Your task to perform on an android device: change the clock display to digital Image 0: 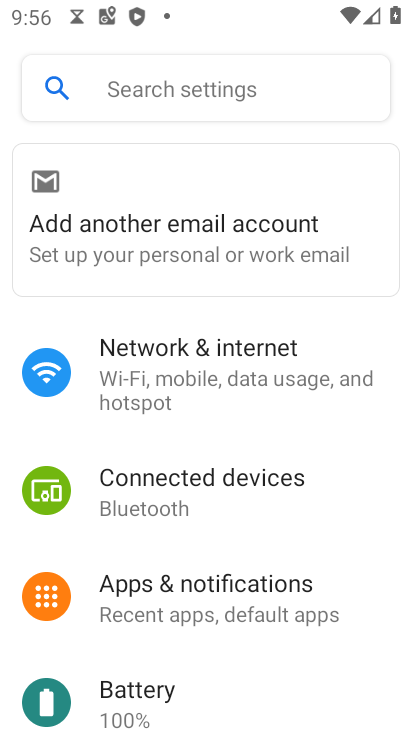
Step 0: press home button
Your task to perform on an android device: change the clock display to digital Image 1: 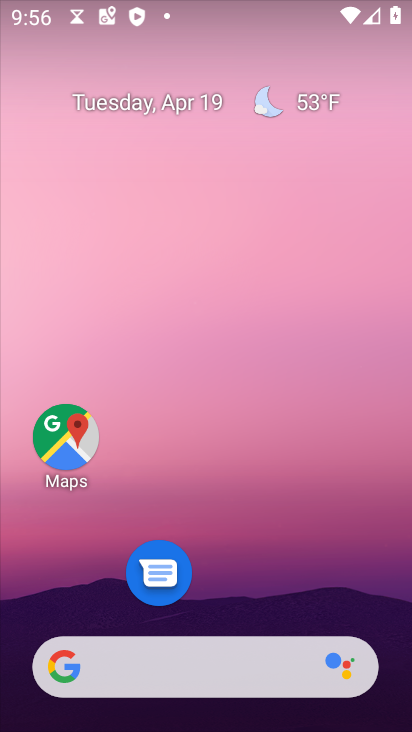
Step 1: drag from (231, 597) to (194, 164)
Your task to perform on an android device: change the clock display to digital Image 2: 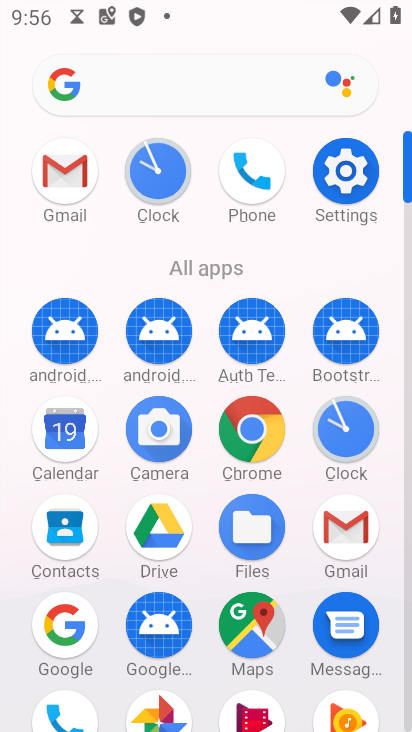
Step 2: click (163, 179)
Your task to perform on an android device: change the clock display to digital Image 3: 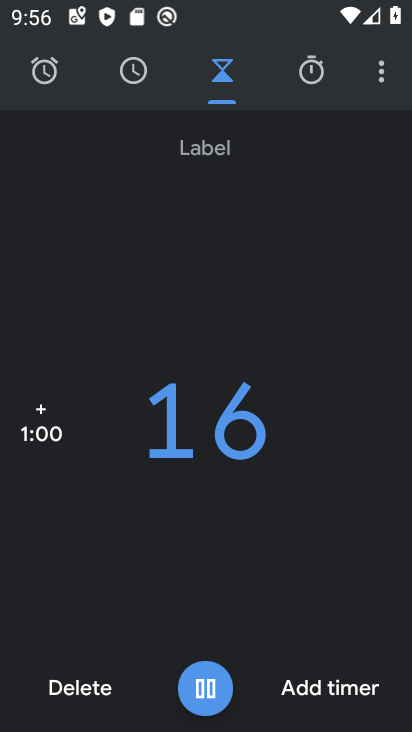
Step 3: click (376, 76)
Your task to perform on an android device: change the clock display to digital Image 4: 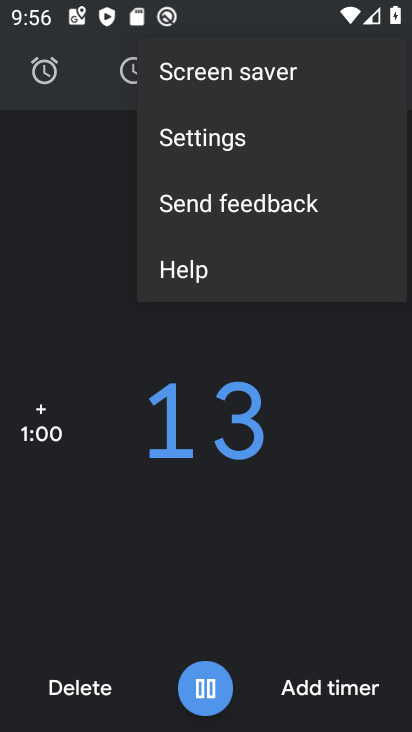
Step 4: click (201, 132)
Your task to perform on an android device: change the clock display to digital Image 5: 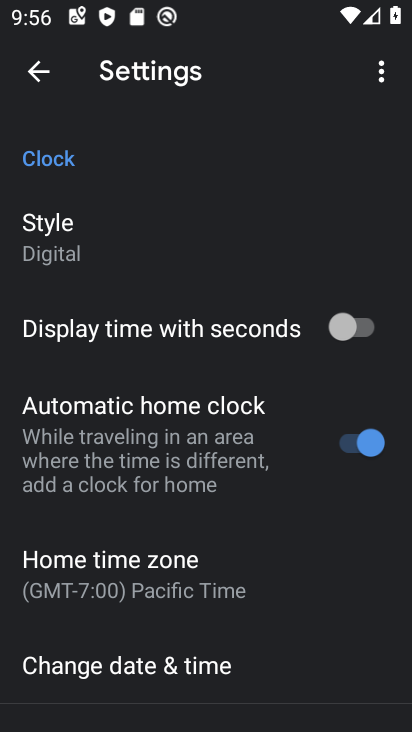
Step 5: click (114, 240)
Your task to perform on an android device: change the clock display to digital Image 6: 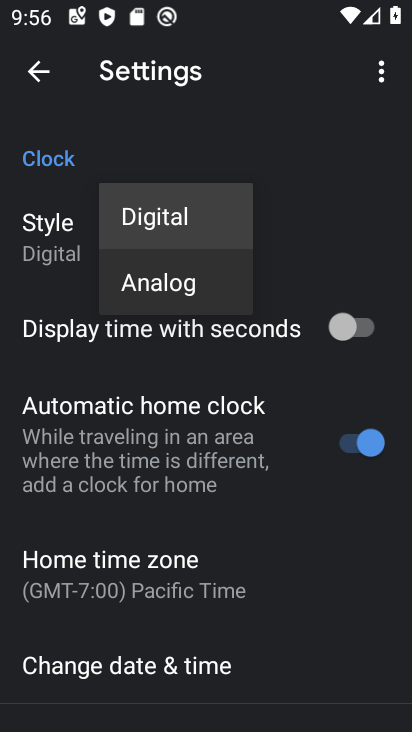
Step 6: task complete